Your task to perform on an android device: Open Youtube and go to "Your channel" Image 0: 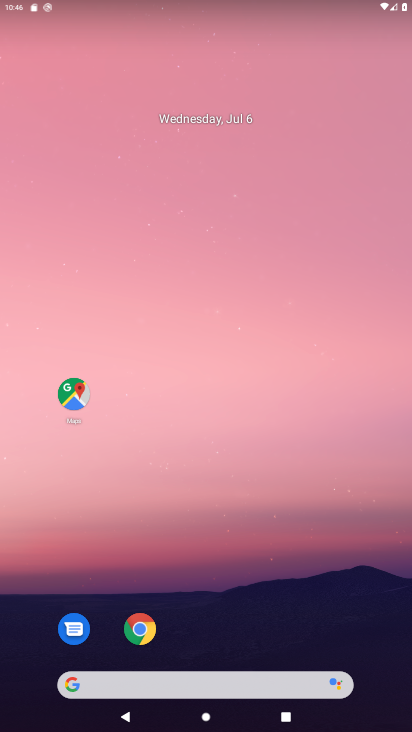
Step 0: drag from (201, 628) to (248, 115)
Your task to perform on an android device: Open Youtube and go to "Your channel" Image 1: 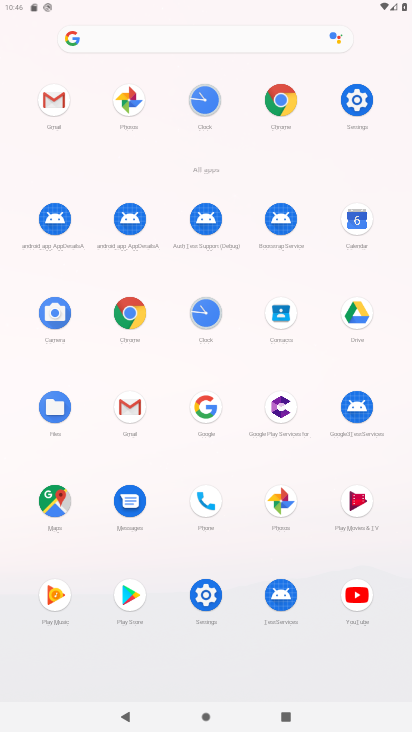
Step 1: click (356, 588)
Your task to perform on an android device: Open Youtube and go to "Your channel" Image 2: 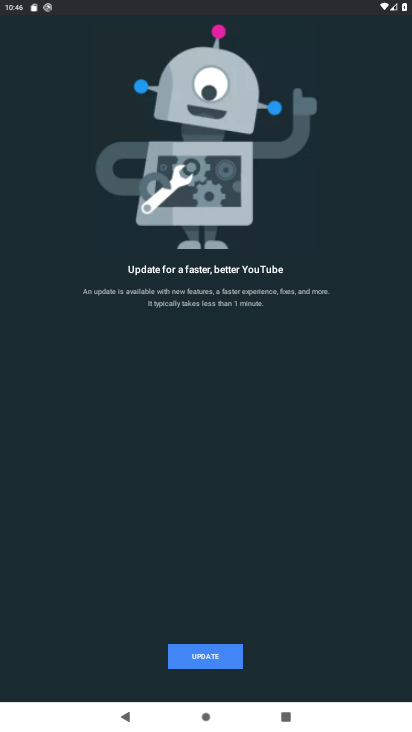
Step 2: click (203, 659)
Your task to perform on an android device: Open Youtube and go to "Your channel" Image 3: 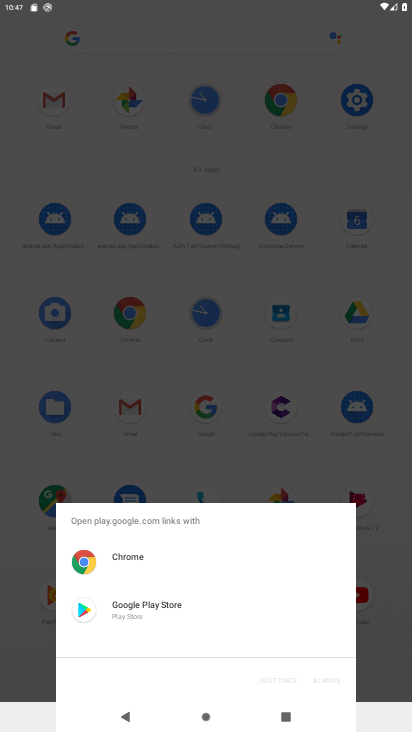
Step 3: click (134, 614)
Your task to perform on an android device: Open Youtube and go to "Your channel" Image 4: 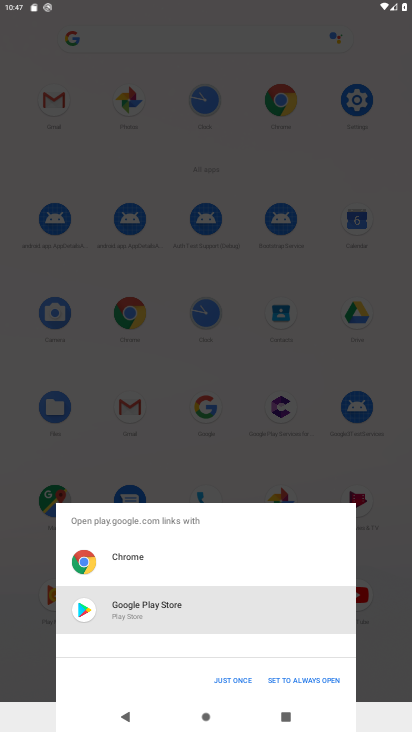
Step 4: click (233, 680)
Your task to perform on an android device: Open Youtube and go to "Your channel" Image 5: 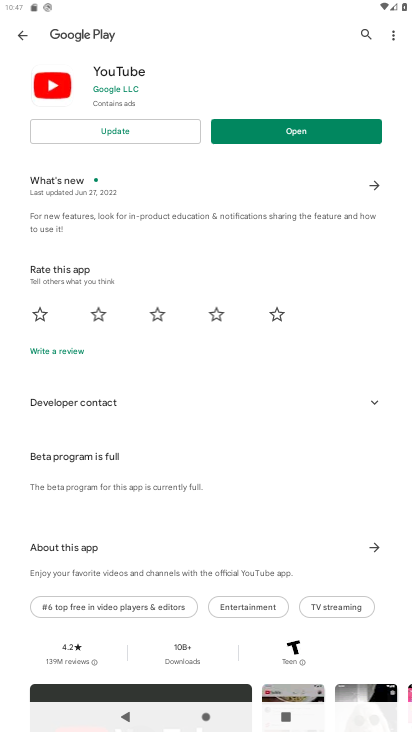
Step 5: click (101, 125)
Your task to perform on an android device: Open Youtube and go to "Your channel" Image 6: 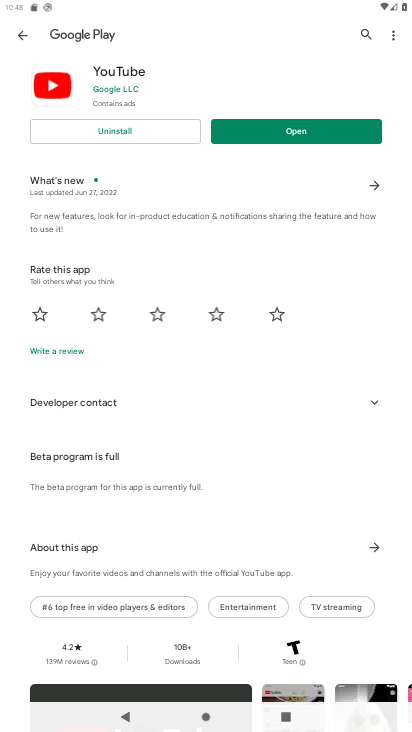
Step 6: click (298, 138)
Your task to perform on an android device: Open Youtube and go to "Your channel" Image 7: 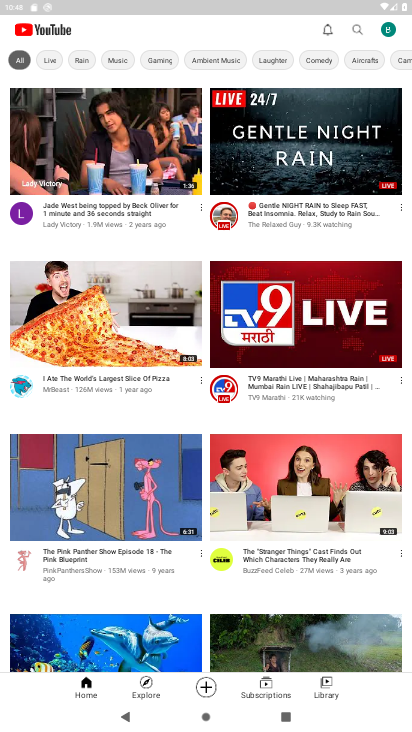
Step 7: click (390, 28)
Your task to perform on an android device: Open Youtube and go to "Your channel" Image 8: 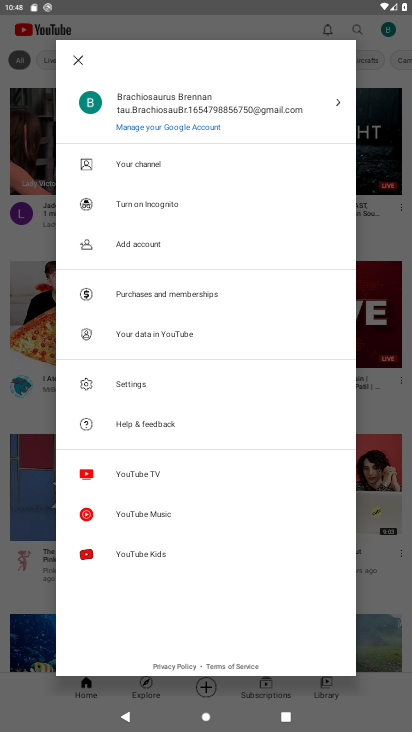
Step 8: click (173, 162)
Your task to perform on an android device: Open Youtube and go to "Your channel" Image 9: 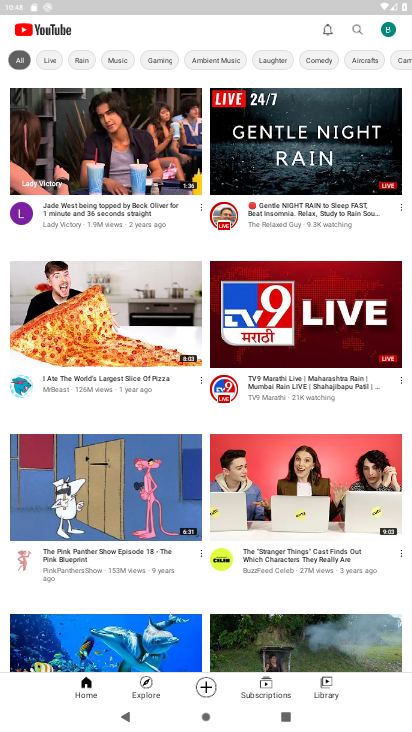
Step 9: click (387, 24)
Your task to perform on an android device: Open Youtube and go to "Your channel" Image 10: 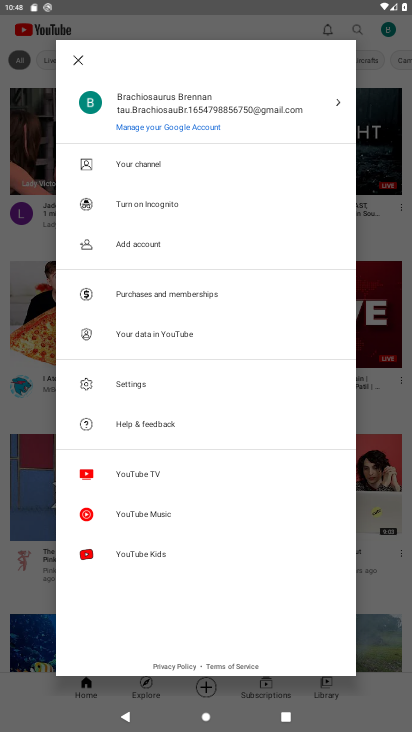
Step 10: click (153, 162)
Your task to perform on an android device: Open Youtube and go to "Your channel" Image 11: 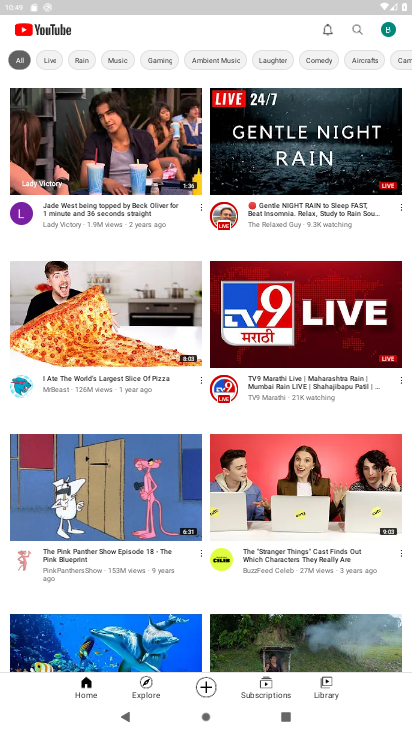
Step 11: click (392, 27)
Your task to perform on an android device: Open Youtube and go to "Your channel" Image 12: 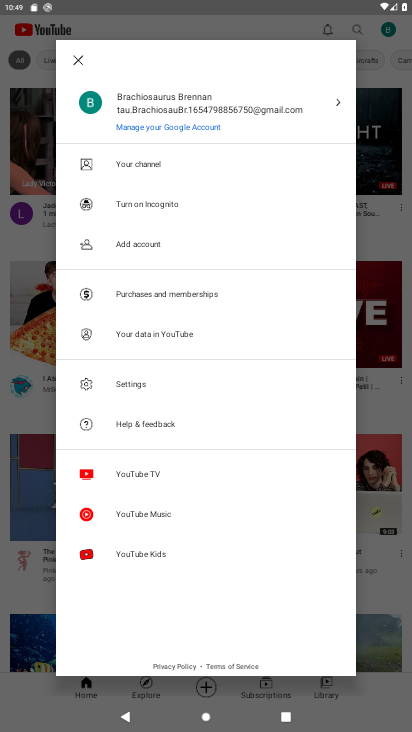
Step 12: click (143, 160)
Your task to perform on an android device: Open Youtube and go to "Your channel" Image 13: 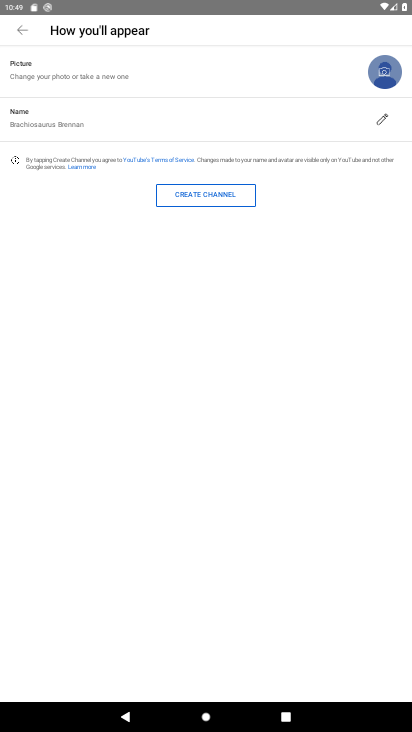
Step 13: task complete